Your task to perform on an android device: Clear the shopping cart on target.com. Image 0: 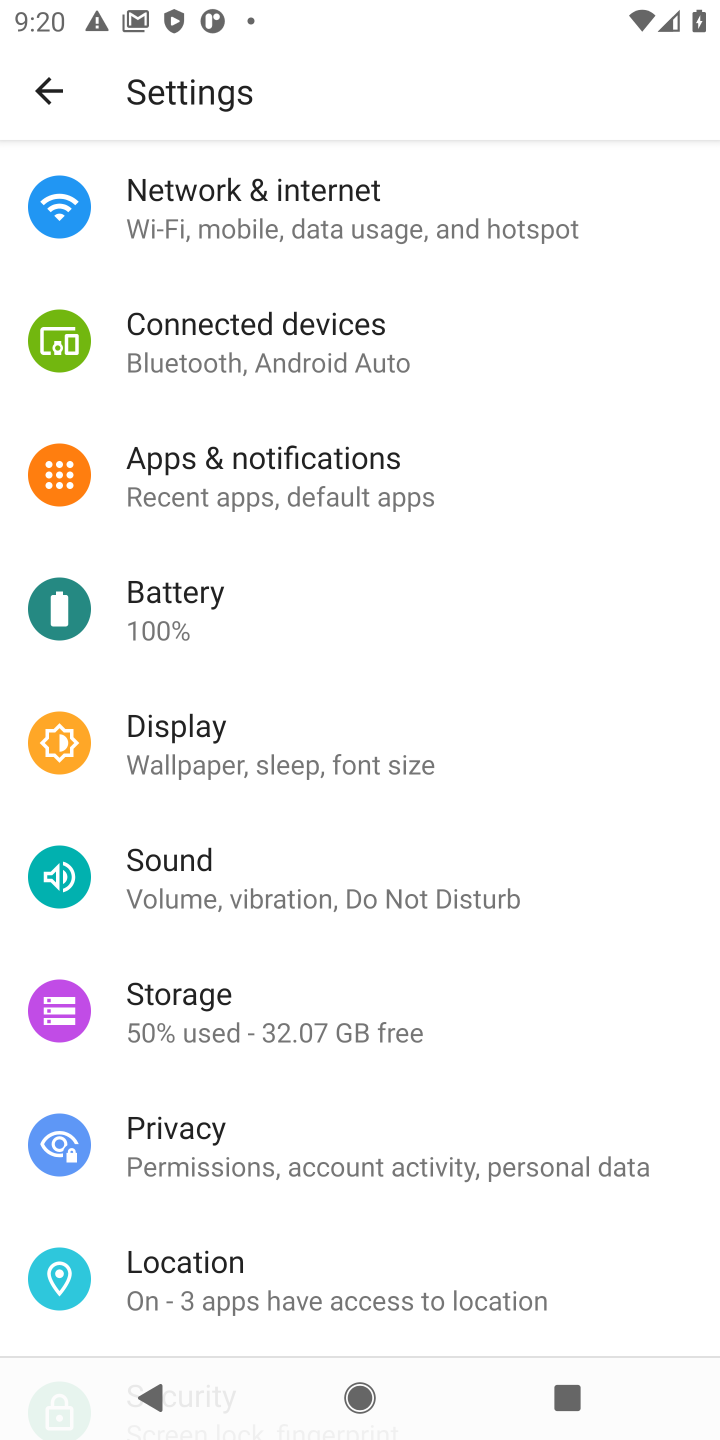
Step 0: press home button
Your task to perform on an android device: Clear the shopping cart on target.com. Image 1: 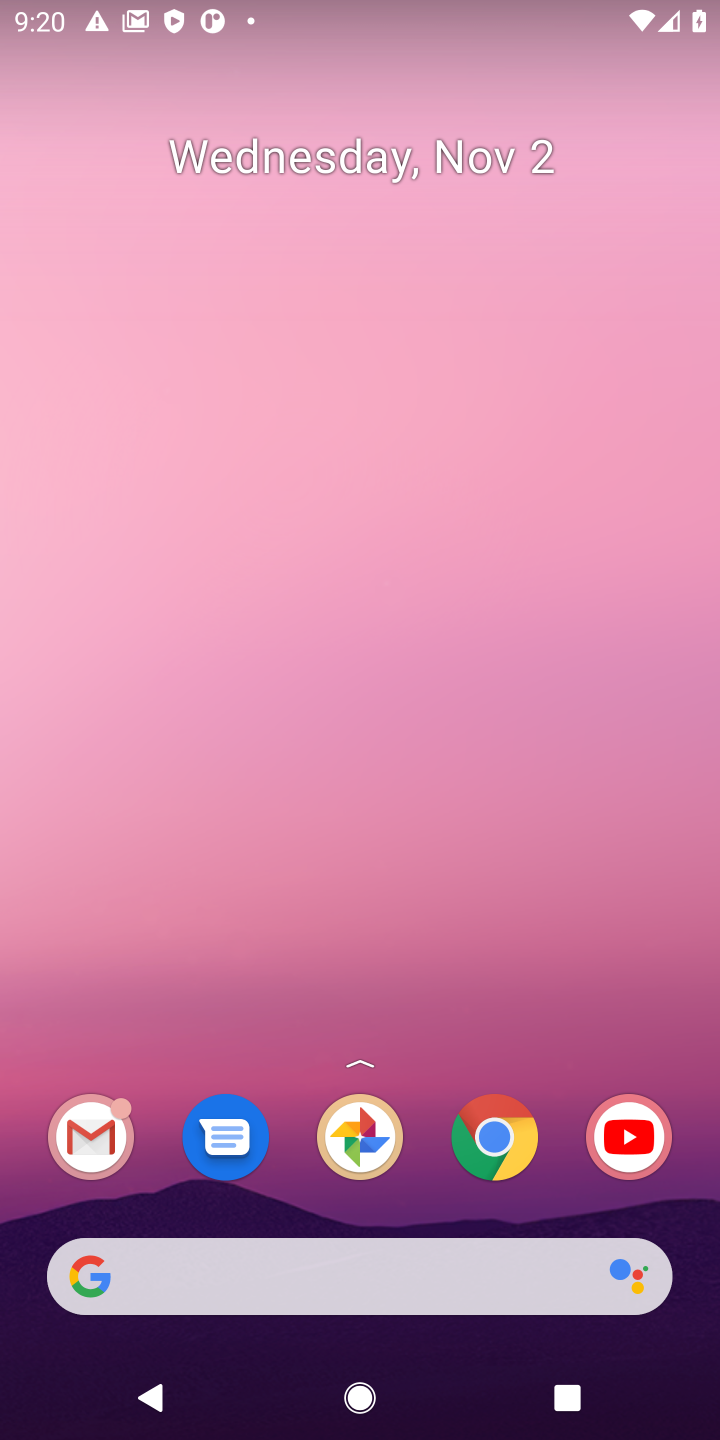
Step 1: click (497, 1135)
Your task to perform on an android device: Clear the shopping cart on target.com. Image 2: 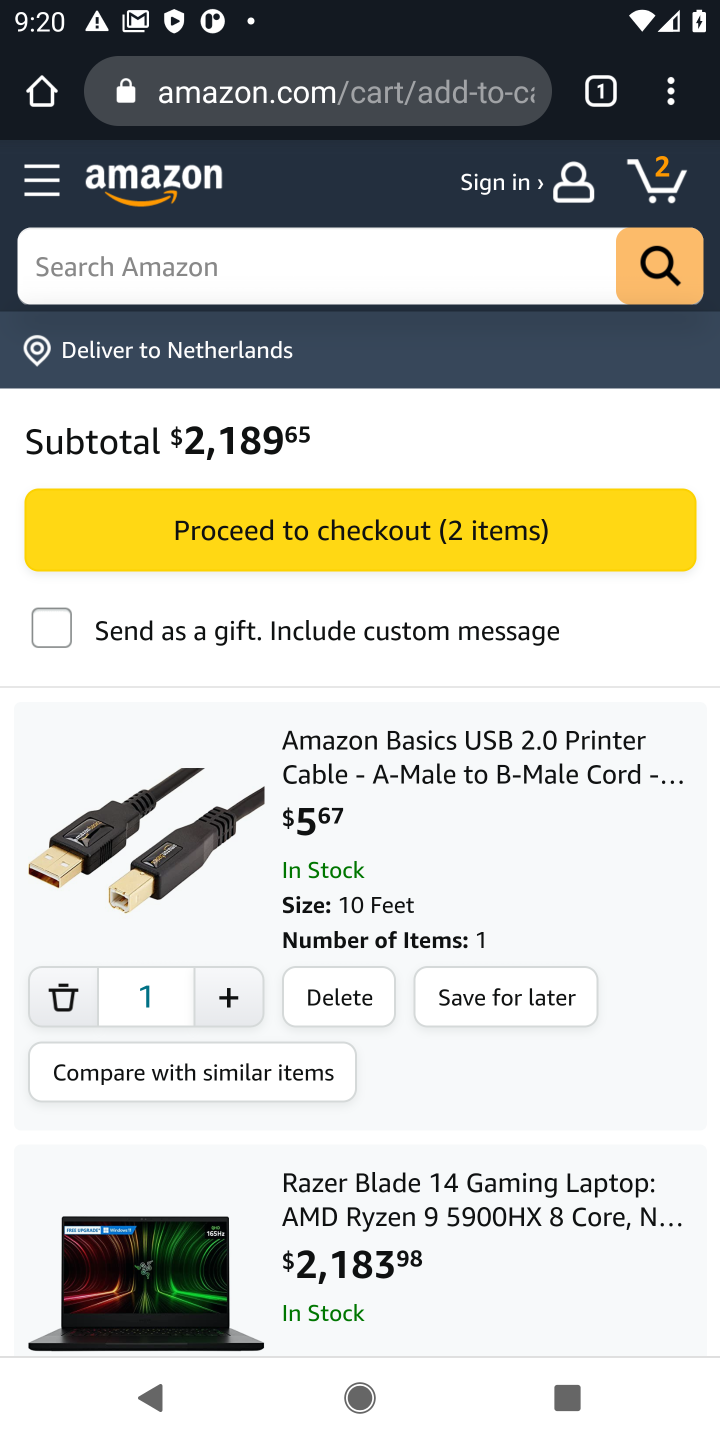
Step 2: click (381, 62)
Your task to perform on an android device: Clear the shopping cart on target.com. Image 3: 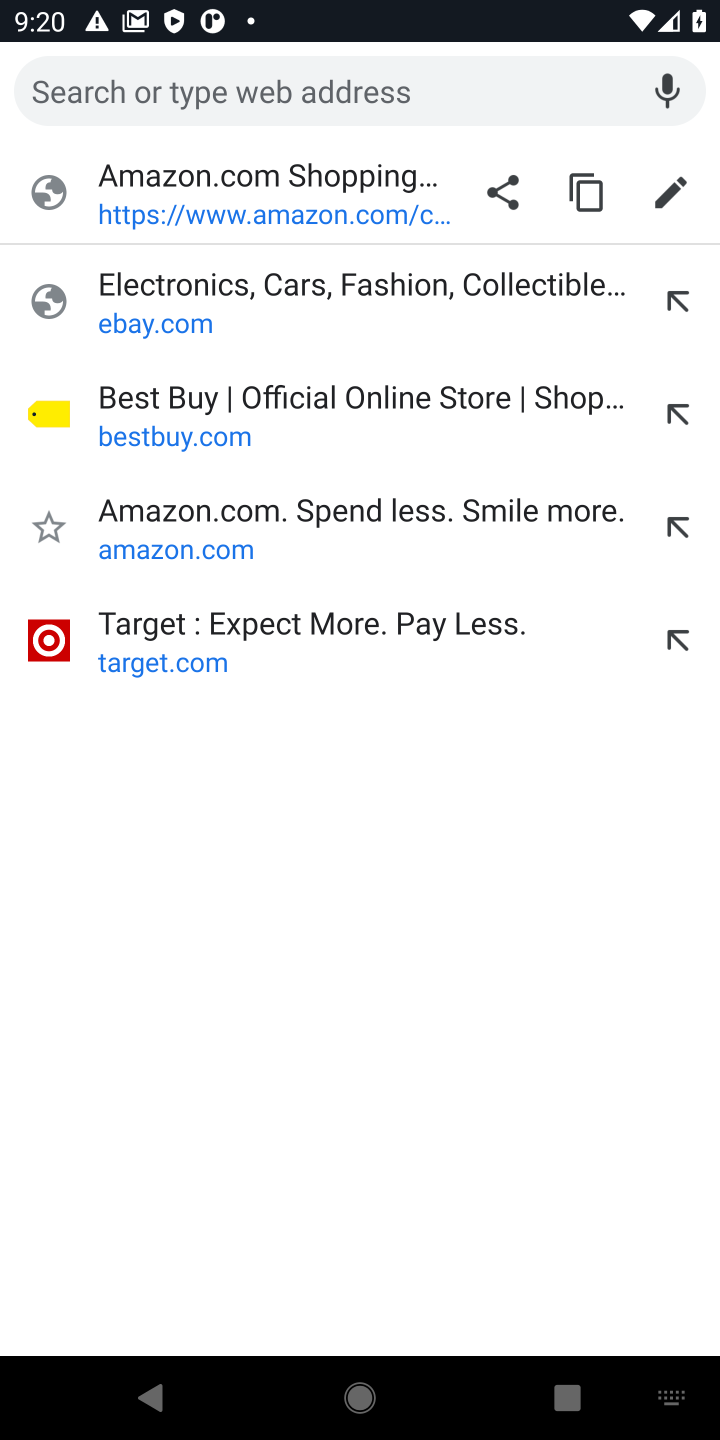
Step 3: click (139, 644)
Your task to perform on an android device: Clear the shopping cart on target.com. Image 4: 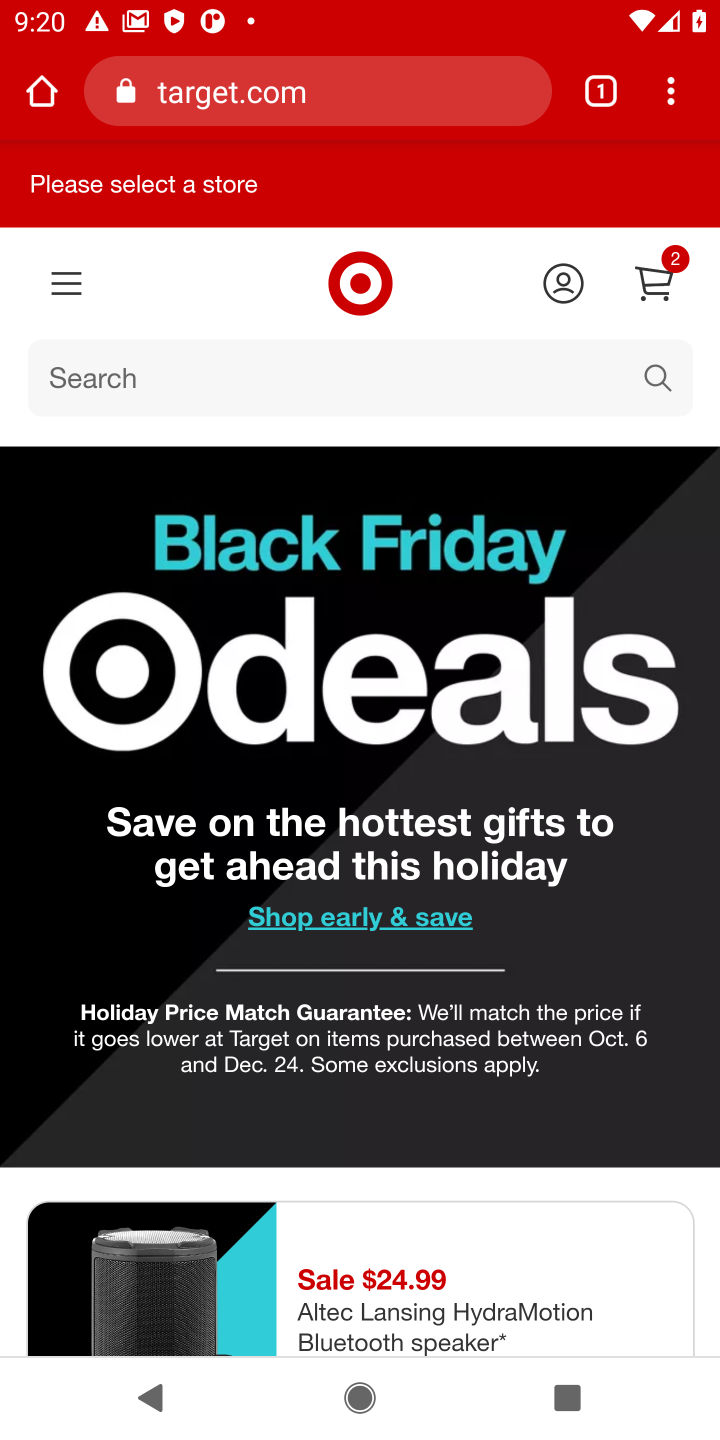
Step 4: click (647, 270)
Your task to perform on an android device: Clear the shopping cart on target.com. Image 5: 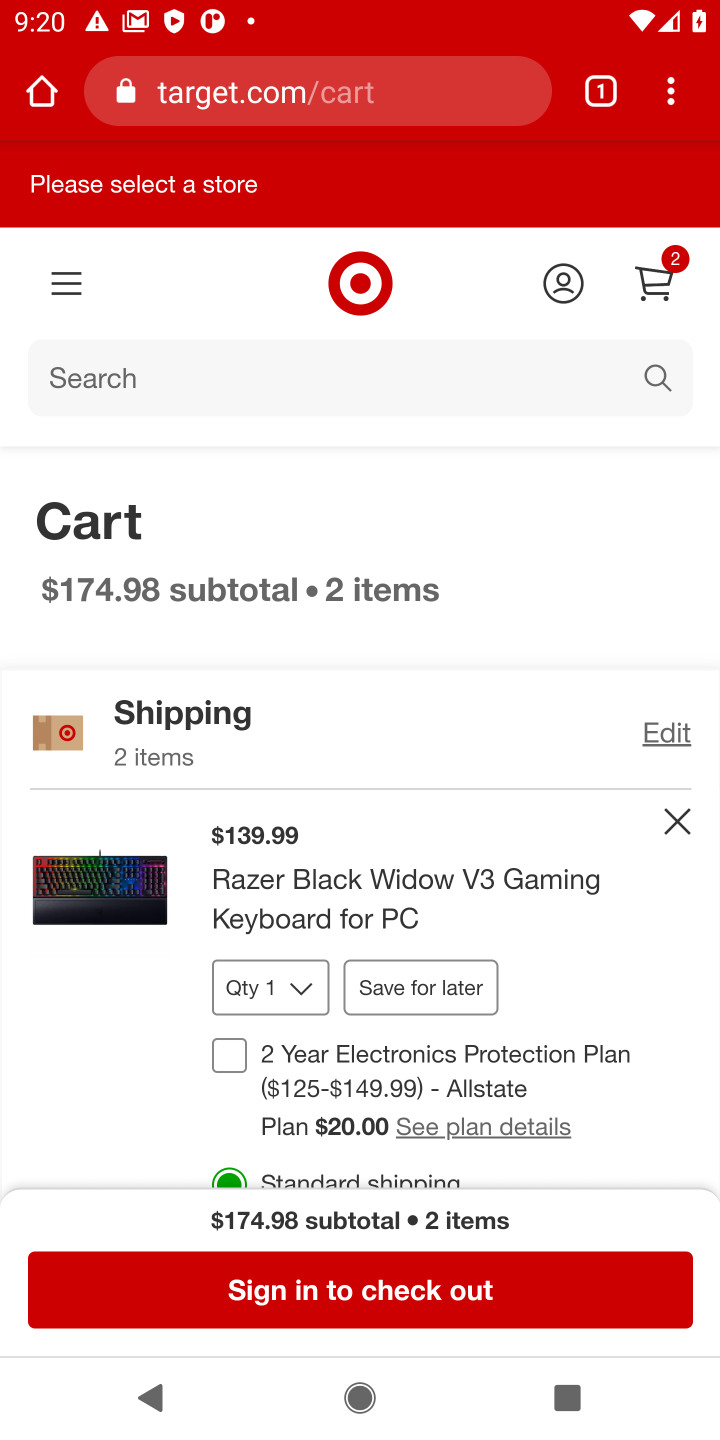
Step 5: click (675, 821)
Your task to perform on an android device: Clear the shopping cart on target.com. Image 6: 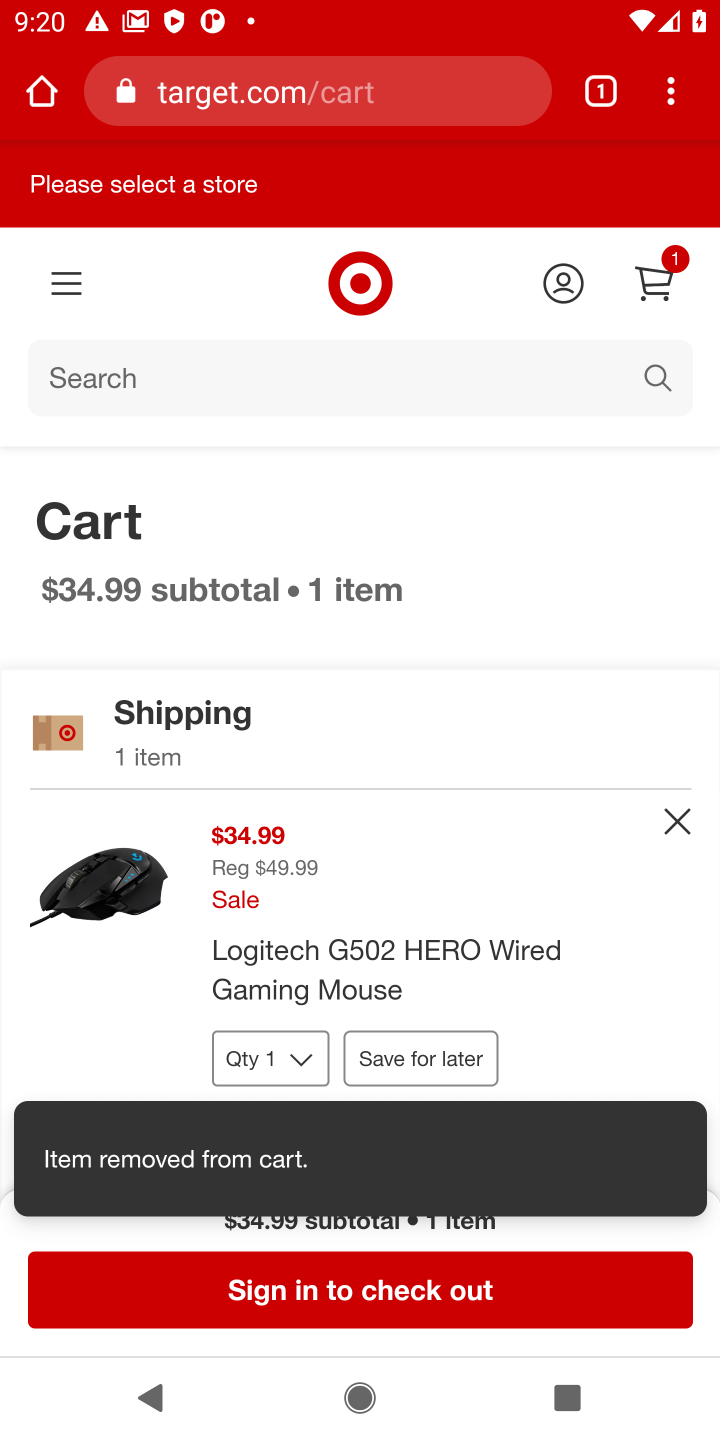
Step 6: click (675, 821)
Your task to perform on an android device: Clear the shopping cart on target.com. Image 7: 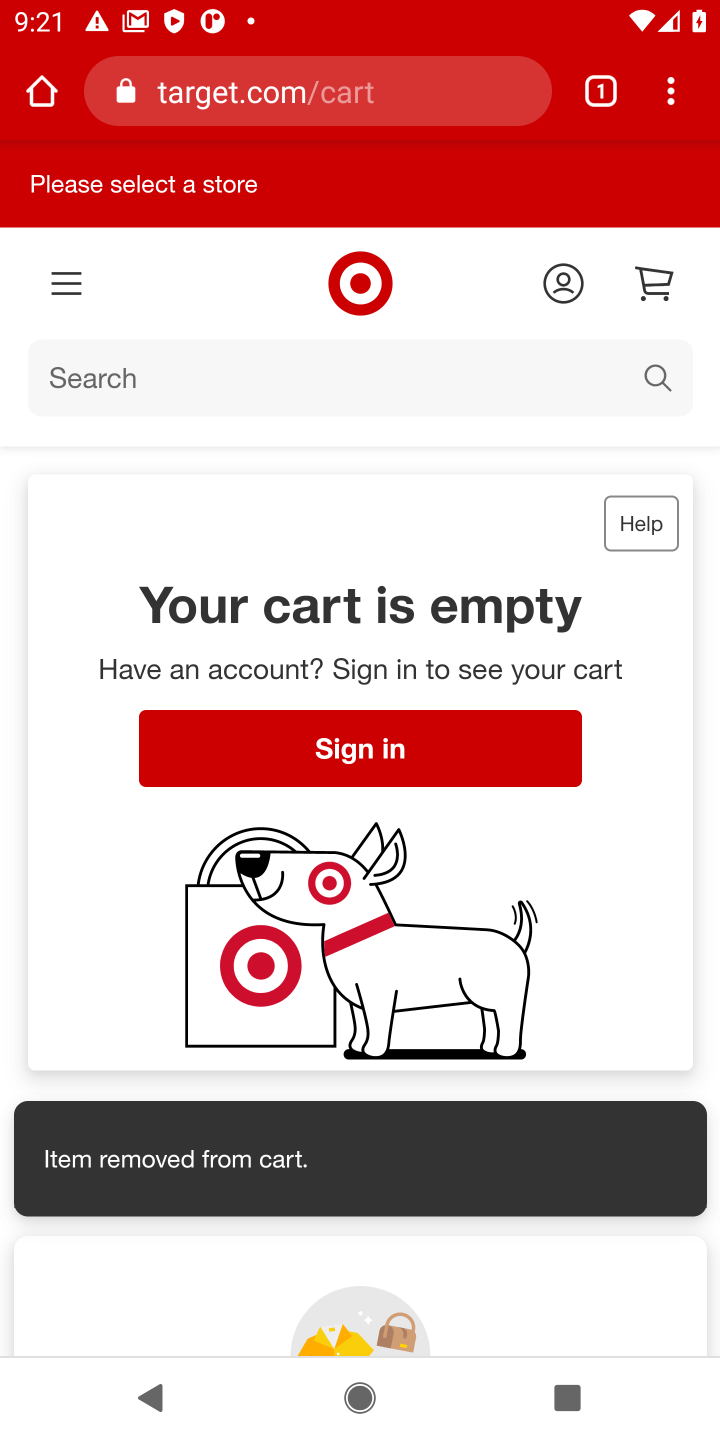
Step 7: task complete